Your task to perform on an android device: turn on the 12-hour format for clock Image 0: 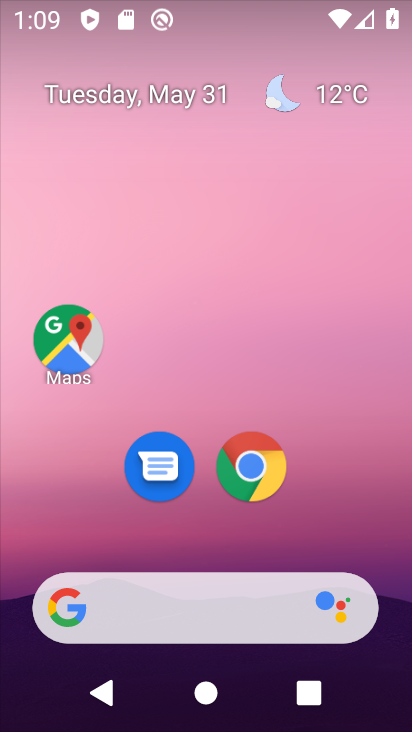
Step 0: drag from (119, 362) to (173, 136)
Your task to perform on an android device: turn on the 12-hour format for clock Image 1: 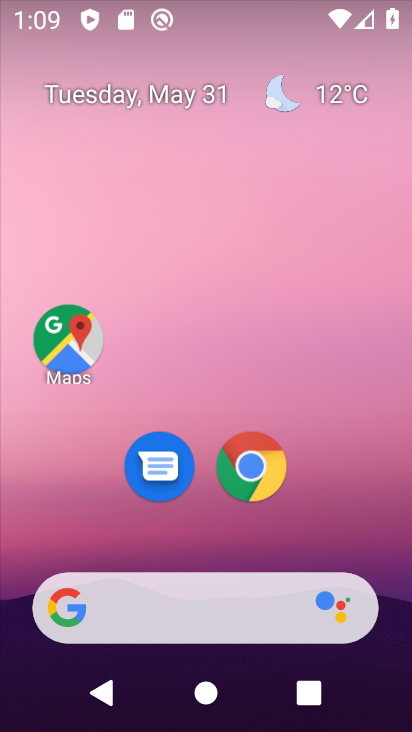
Step 1: drag from (87, 580) to (227, 62)
Your task to perform on an android device: turn on the 12-hour format for clock Image 2: 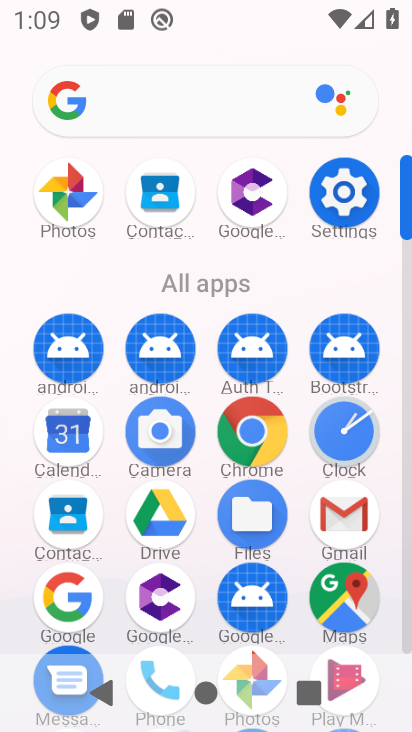
Step 2: click (343, 436)
Your task to perform on an android device: turn on the 12-hour format for clock Image 3: 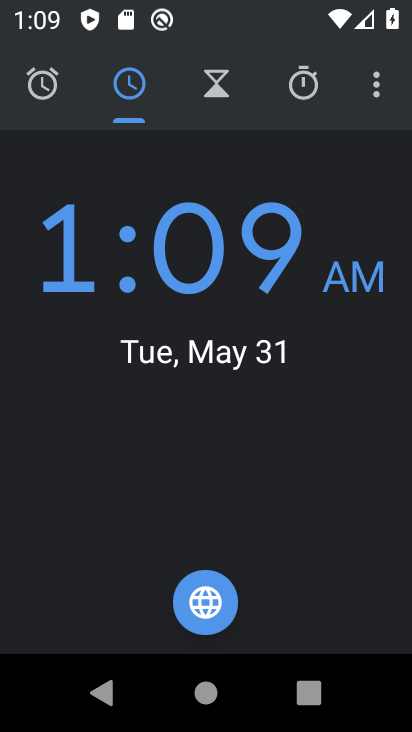
Step 3: click (369, 104)
Your task to perform on an android device: turn on the 12-hour format for clock Image 4: 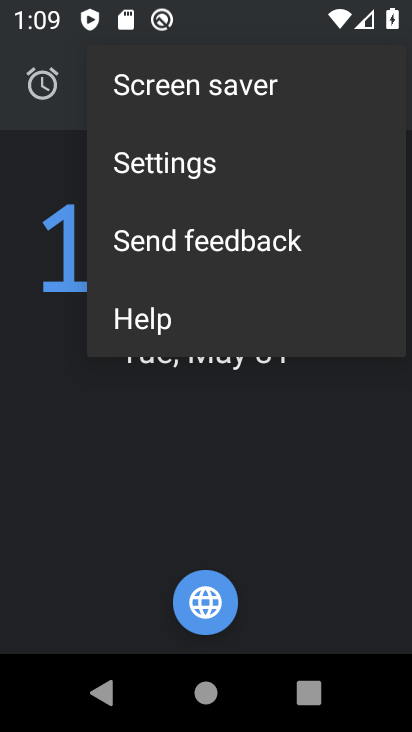
Step 4: click (346, 169)
Your task to perform on an android device: turn on the 12-hour format for clock Image 5: 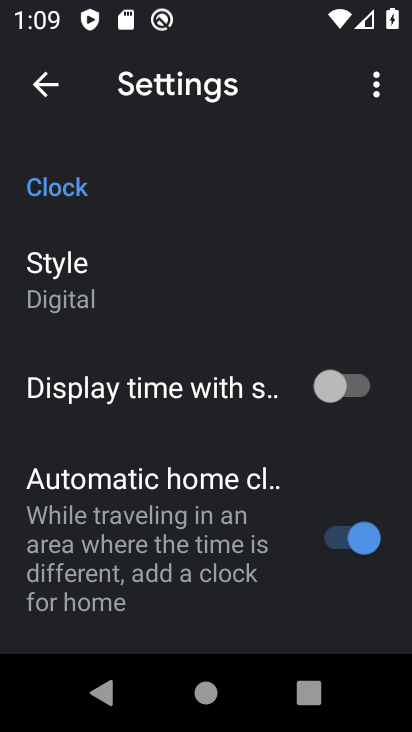
Step 5: drag from (180, 507) to (317, 66)
Your task to perform on an android device: turn on the 12-hour format for clock Image 6: 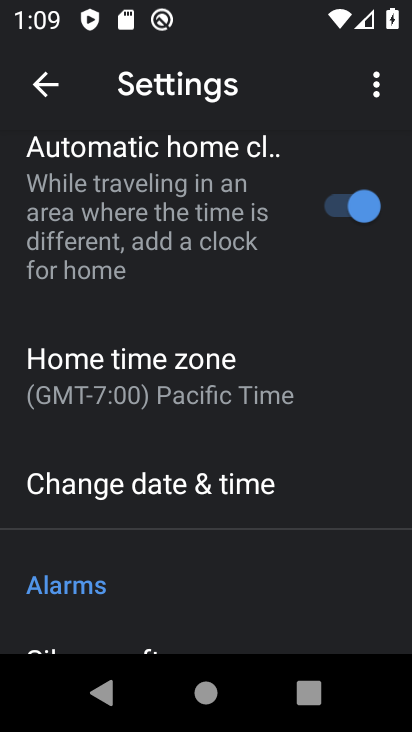
Step 6: click (227, 486)
Your task to perform on an android device: turn on the 12-hour format for clock Image 7: 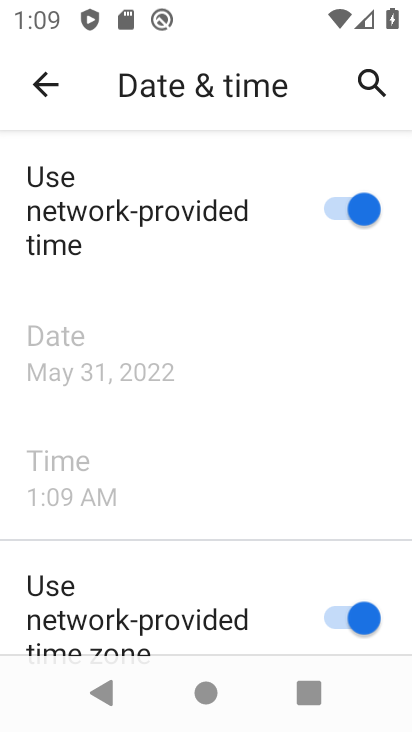
Step 7: task complete